Your task to perform on an android device: What is the news today? Image 0: 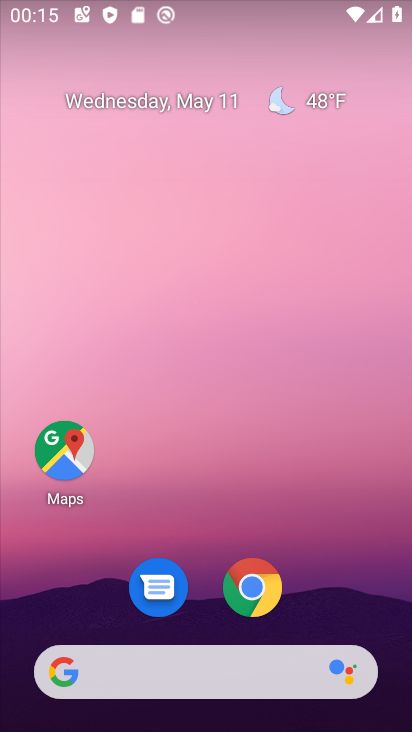
Step 0: drag from (6, 339) to (271, 401)
Your task to perform on an android device: What is the news today? Image 1: 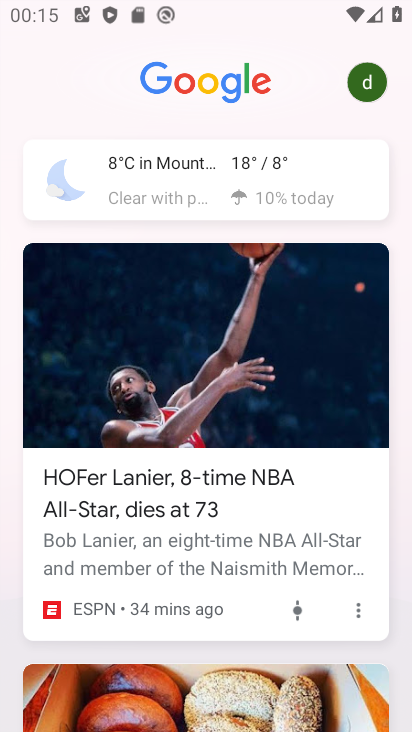
Step 1: task complete